Your task to perform on an android device: open a bookmark in the chrome app Image 0: 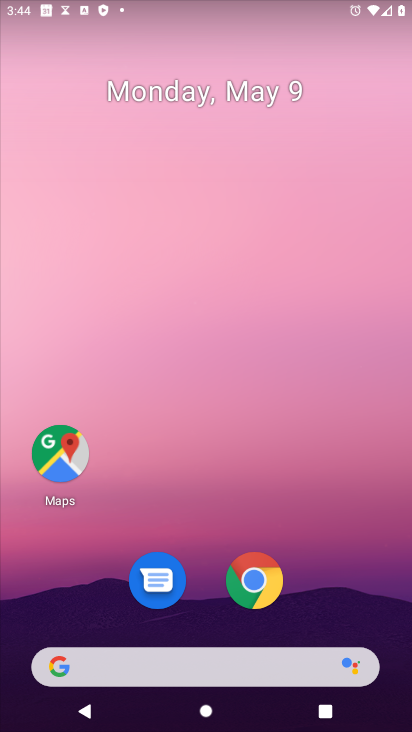
Step 0: click (266, 581)
Your task to perform on an android device: open a bookmark in the chrome app Image 1: 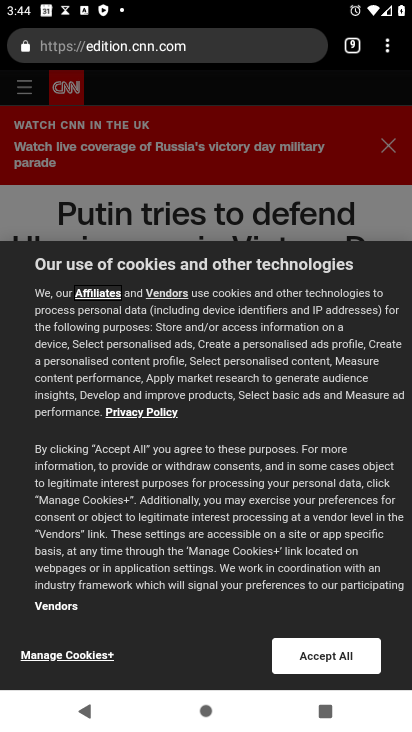
Step 1: click (385, 41)
Your task to perform on an android device: open a bookmark in the chrome app Image 2: 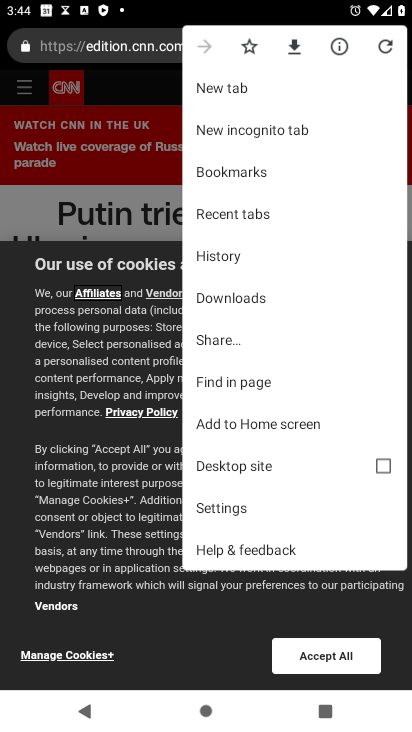
Step 2: click (258, 176)
Your task to perform on an android device: open a bookmark in the chrome app Image 3: 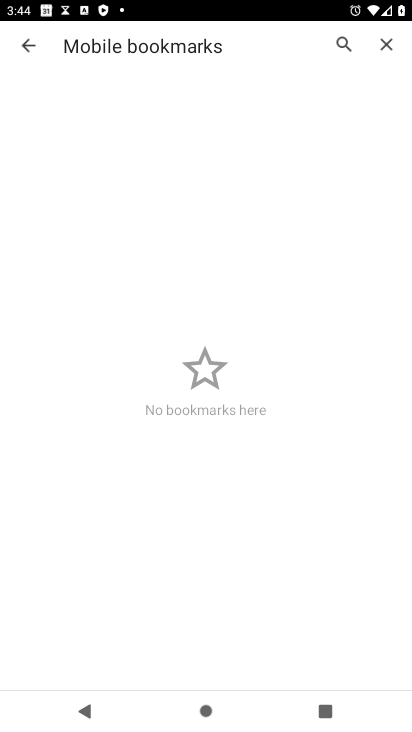
Step 3: task complete